Your task to perform on an android device: Go to ESPN.com Image 0: 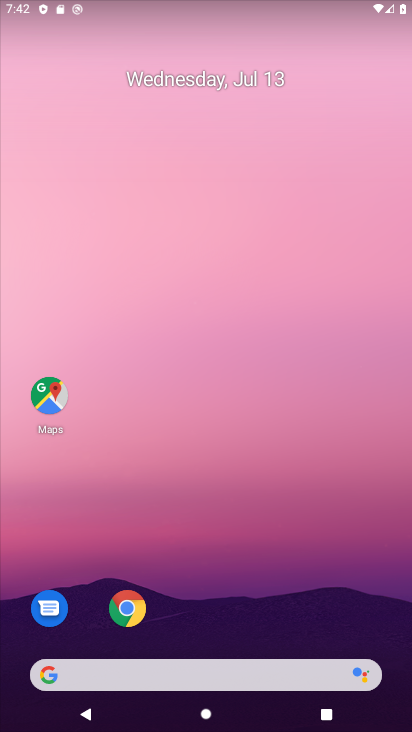
Step 0: click (134, 603)
Your task to perform on an android device: Go to ESPN.com Image 1: 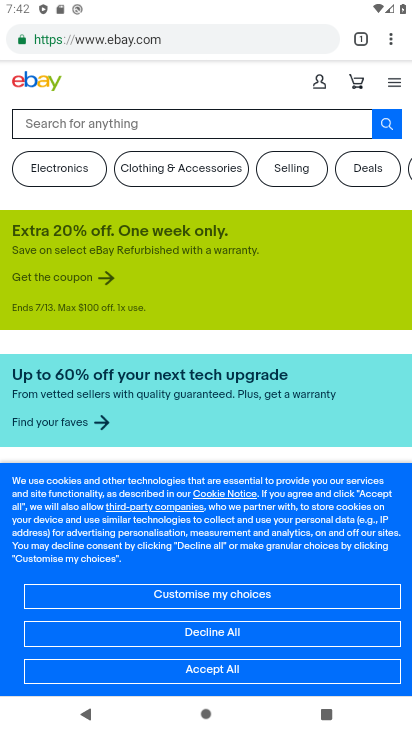
Step 1: click (360, 40)
Your task to perform on an android device: Go to ESPN.com Image 2: 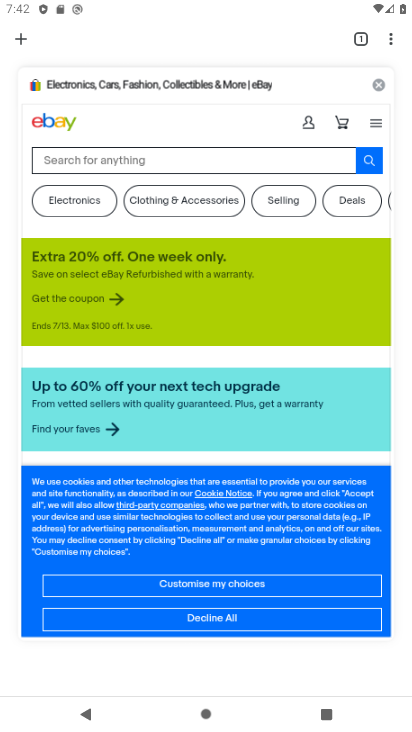
Step 2: click (28, 44)
Your task to perform on an android device: Go to ESPN.com Image 3: 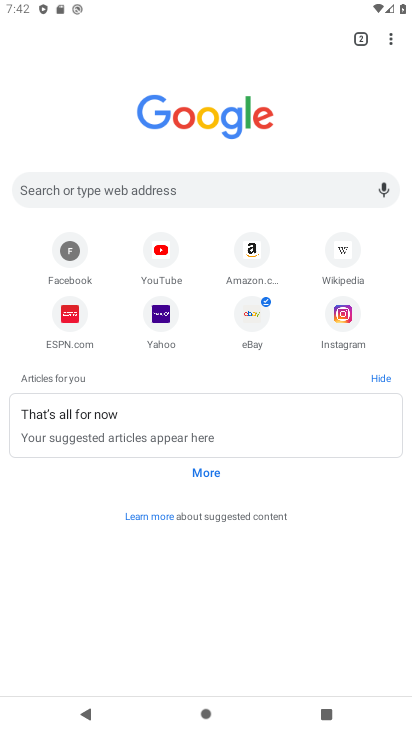
Step 3: click (68, 329)
Your task to perform on an android device: Go to ESPN.com Image 4: 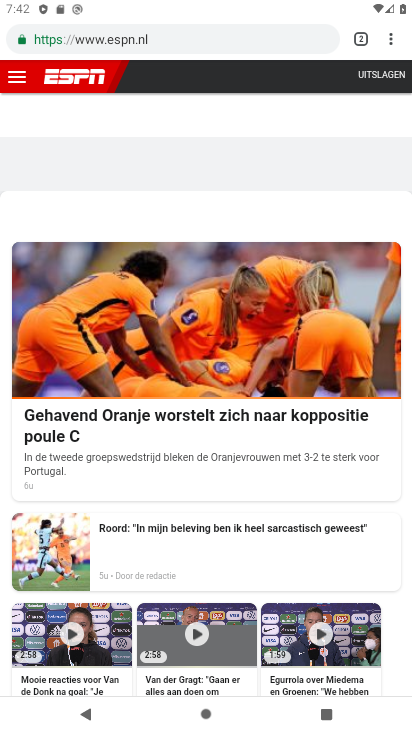
Step 4: task complete